Your task to perform on an android device: toggle wifi Image 0: 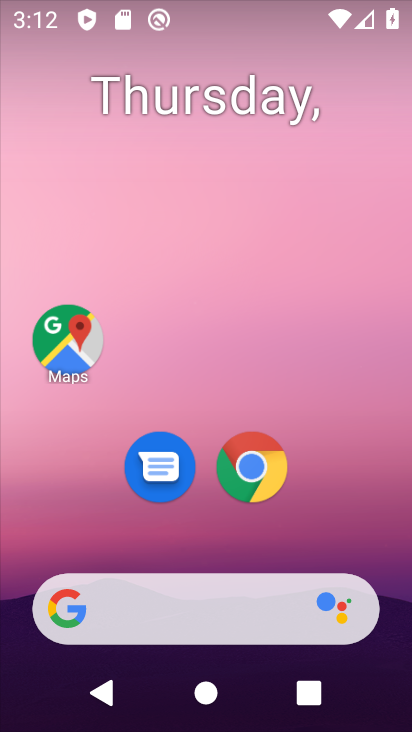
Step 0: drag from (208, 596) to (221, 72)
Your task to perform on an android device: toggle wifi Image 1: 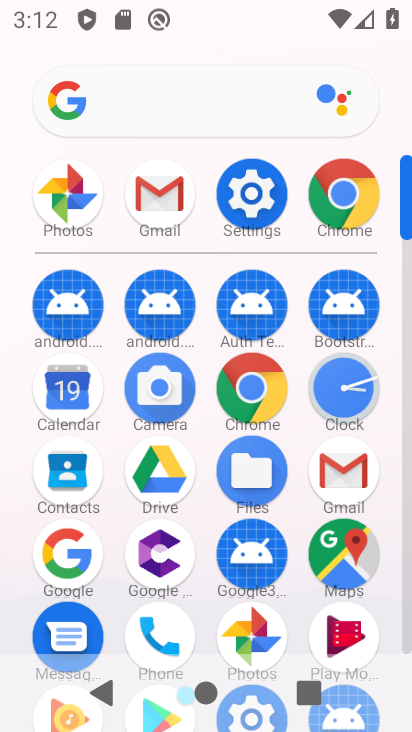
Step 1: click (237, 195)
Your task to perform on an android device: toggle wifi Image 2: 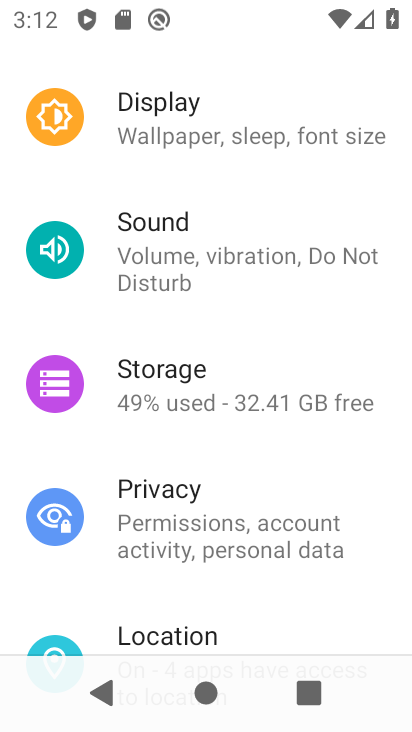
Step 2: drag from (194, 128) to (212, 563)
Your task to perform on an android device: toggle wifi Image 3: 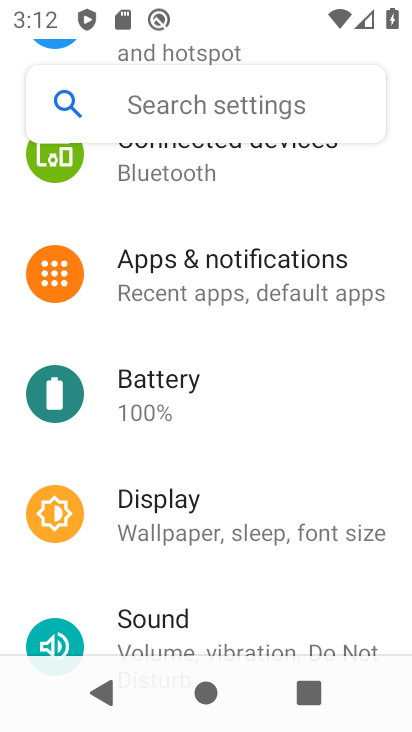
Step 3: drag from (161, 156) to (141, 706)
Your task to perform on an android device: toggle wifi Image 4: 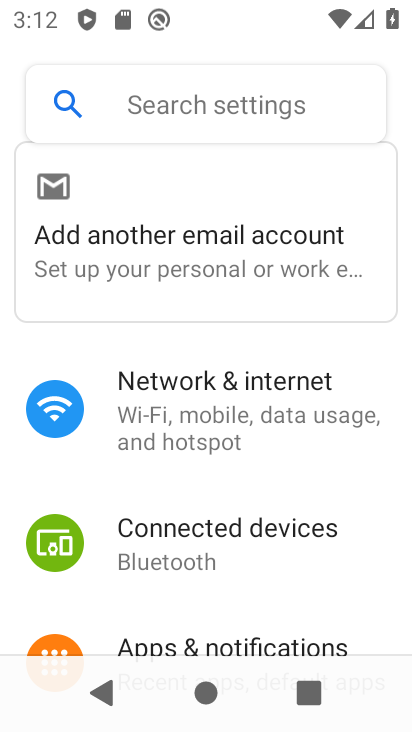
Step 4: click (178, 420)
Your task to perform on an android device: toggle wifi Image 5: 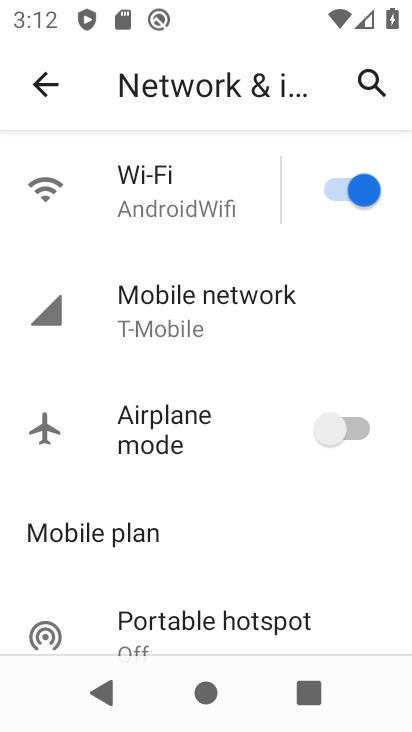
Step 5: click (365, 189)
Your task to perform on an android device: toggle wifi Image 6: 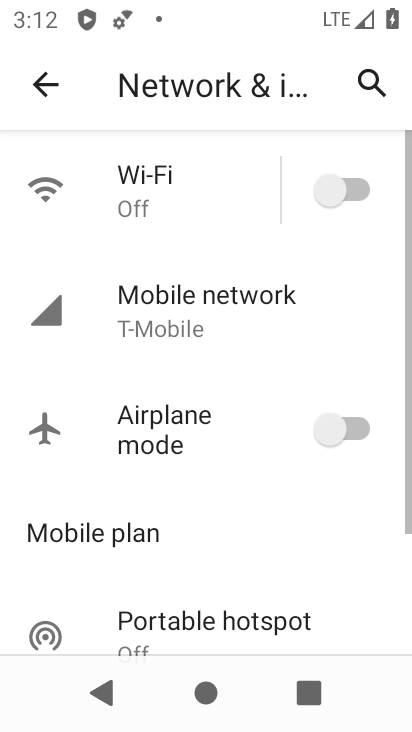
Step 6: task complete